Your task to perform on an android device: Do I have any events tomorrow? Image 0: 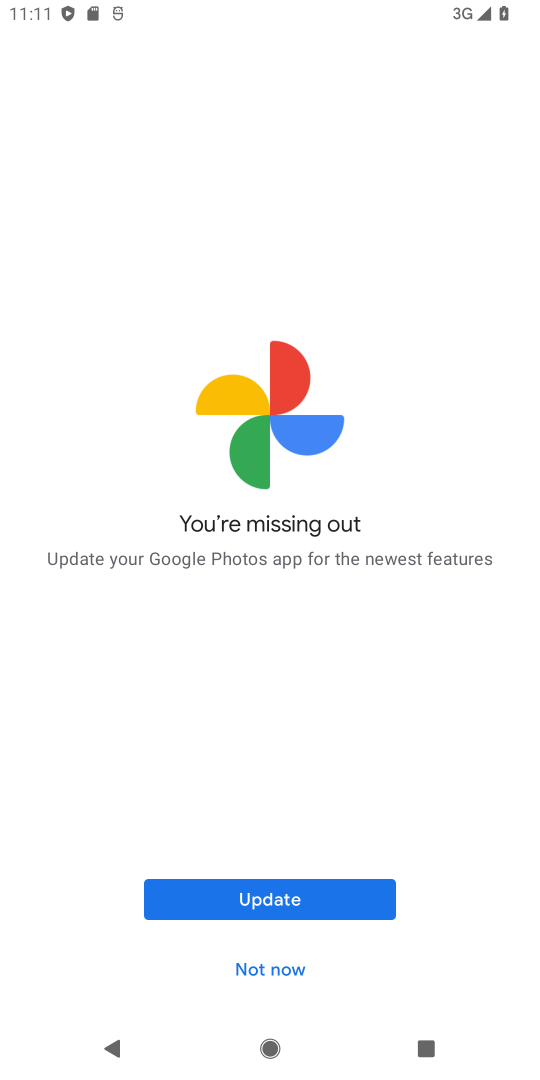
Step 0: press home button
Your task to perform on an android device: Do I have any events tomorrow? Image 1: 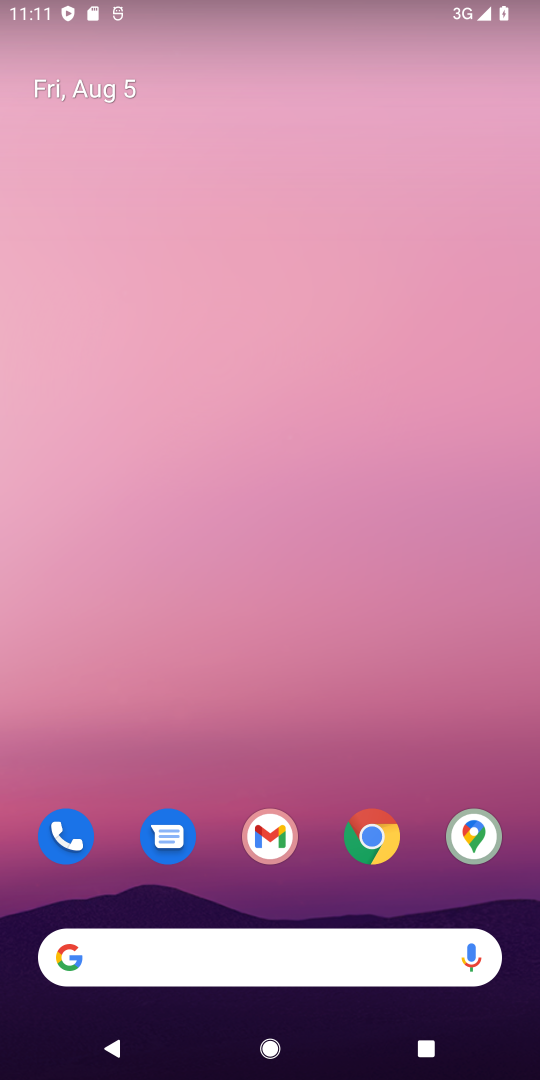
Step 1: drag from (314, 817) to (329, 226)
Your task to perform on an android device: Do I have any events tomorrow? Image 2: 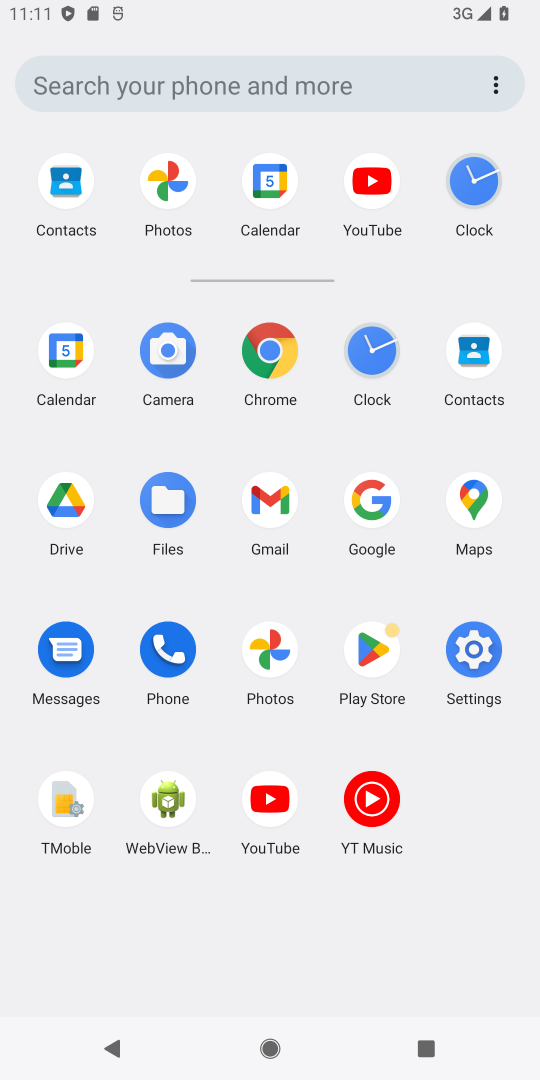
Step 2: click (69, 352)
Your task to perform on an android device: Do I have any events tomorrow? Image 3: 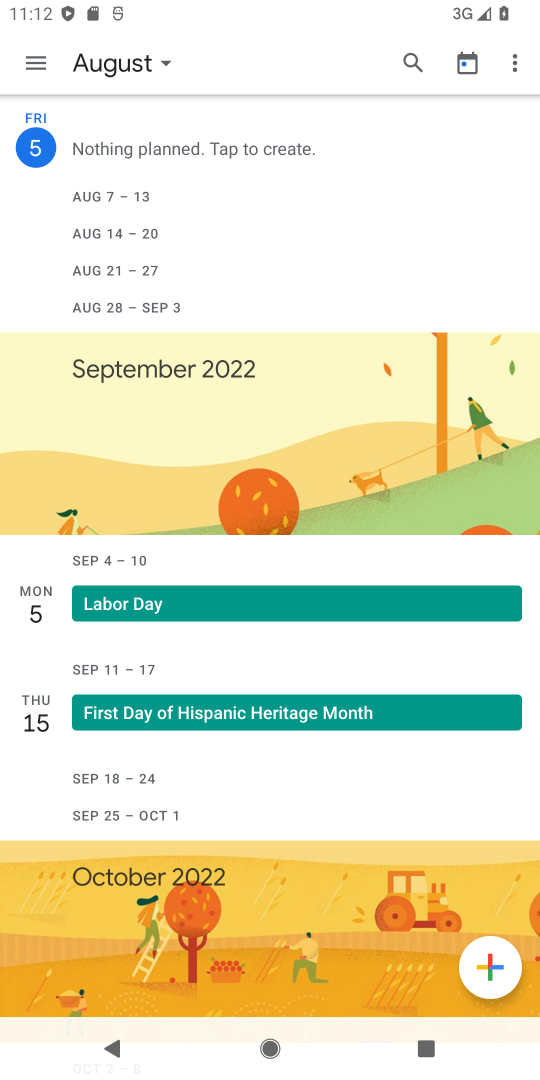
Step 3: click (103, 72)
Your task to perform on an android device: Do I have any events tomorrow? Image 4: 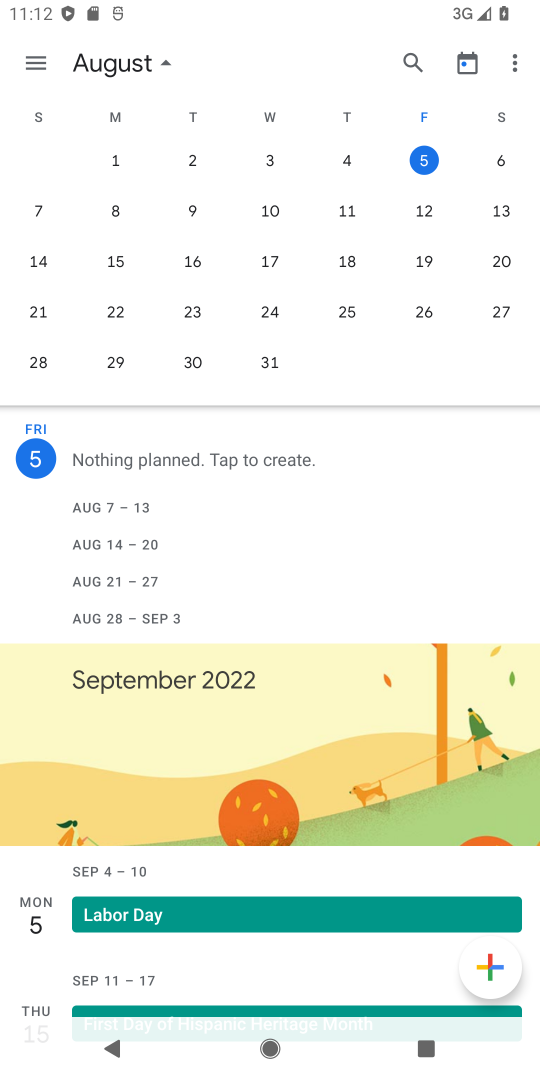
Step 4: click (505, 156)
Your task to perform on an android device: Do I have any events tomorrow? Image 5: 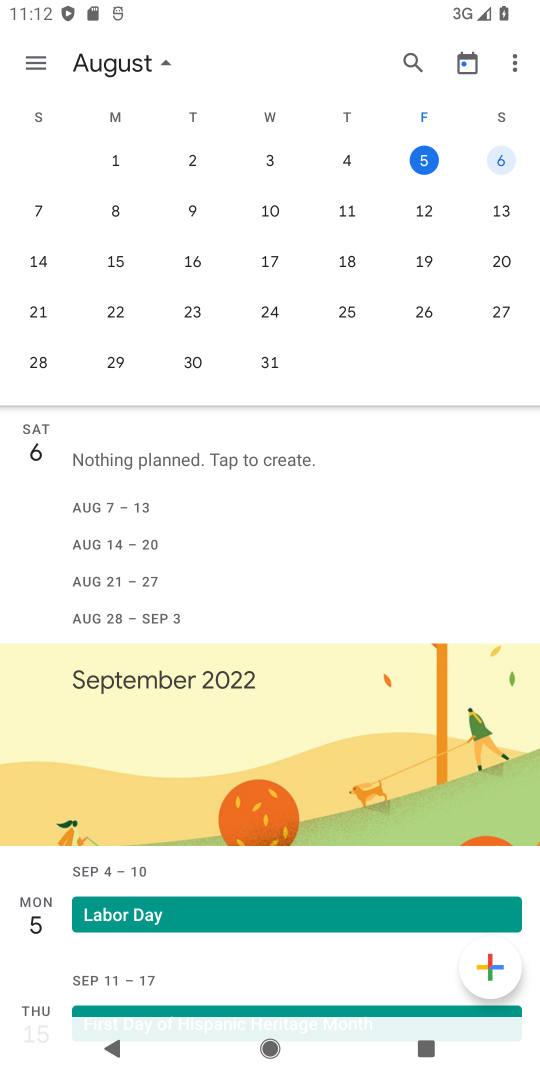
Step 5: task complete